Your task to perform on an android device: install app "Venmo" Image 0: 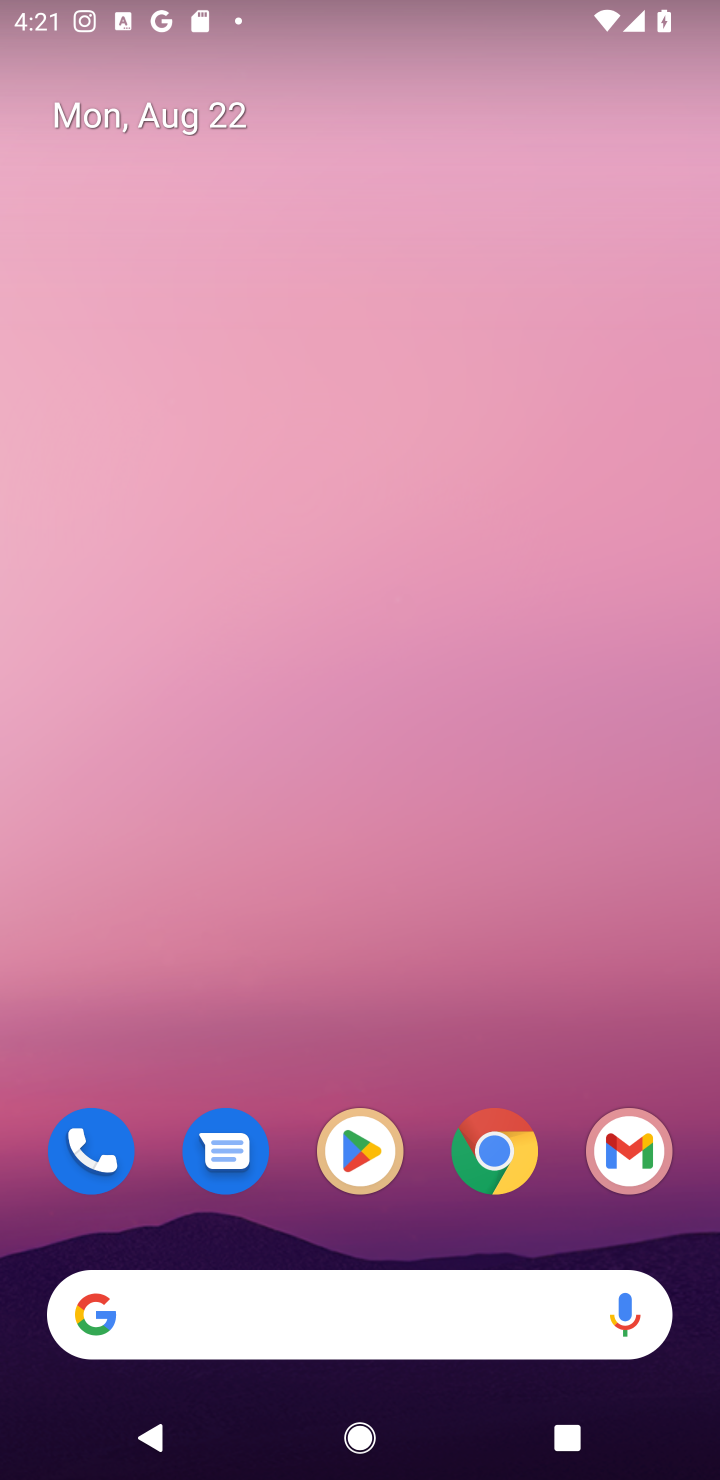
Step 0: click (348, 1130)
Your task to perform on an android device: install app "Venmo" Image 1: 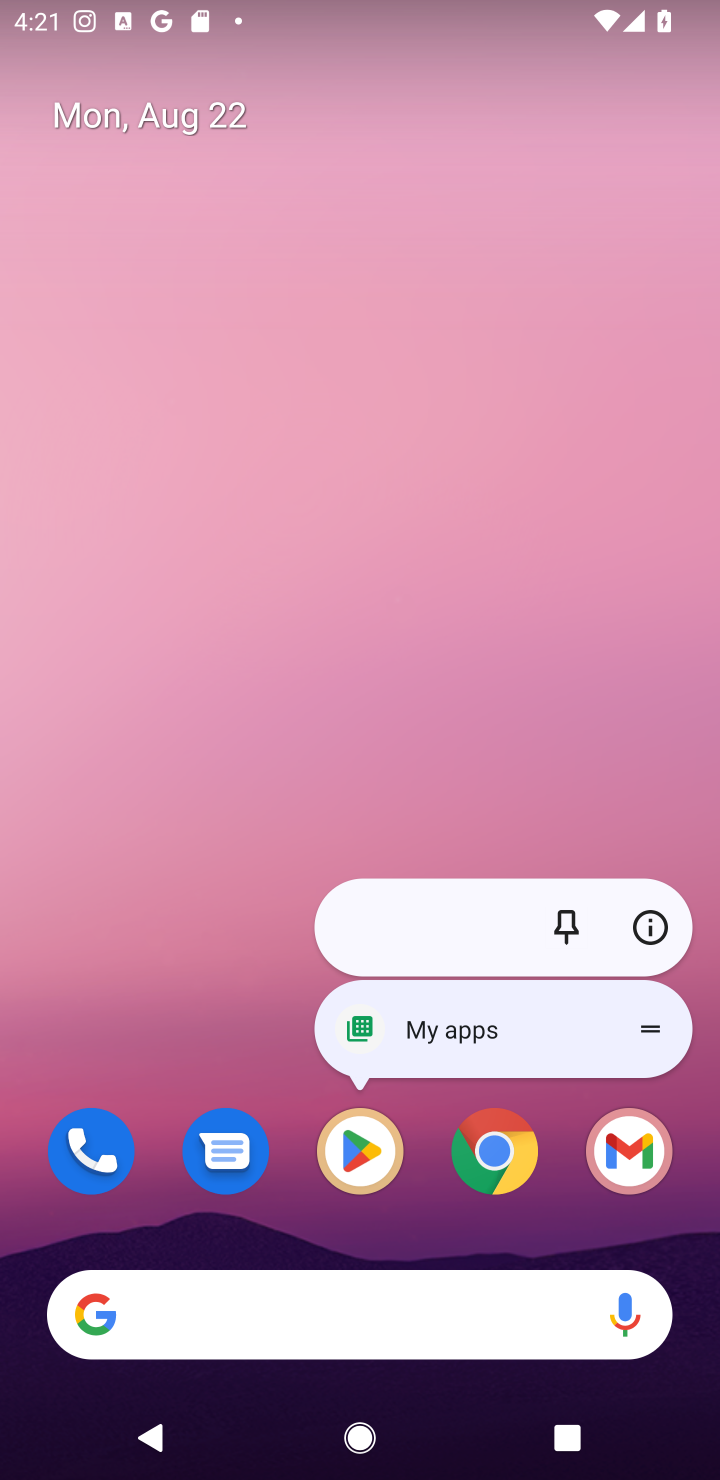
Step 1: click (348, 1134)
Your task to perform on an android device: install app "Venmo" Image 2: 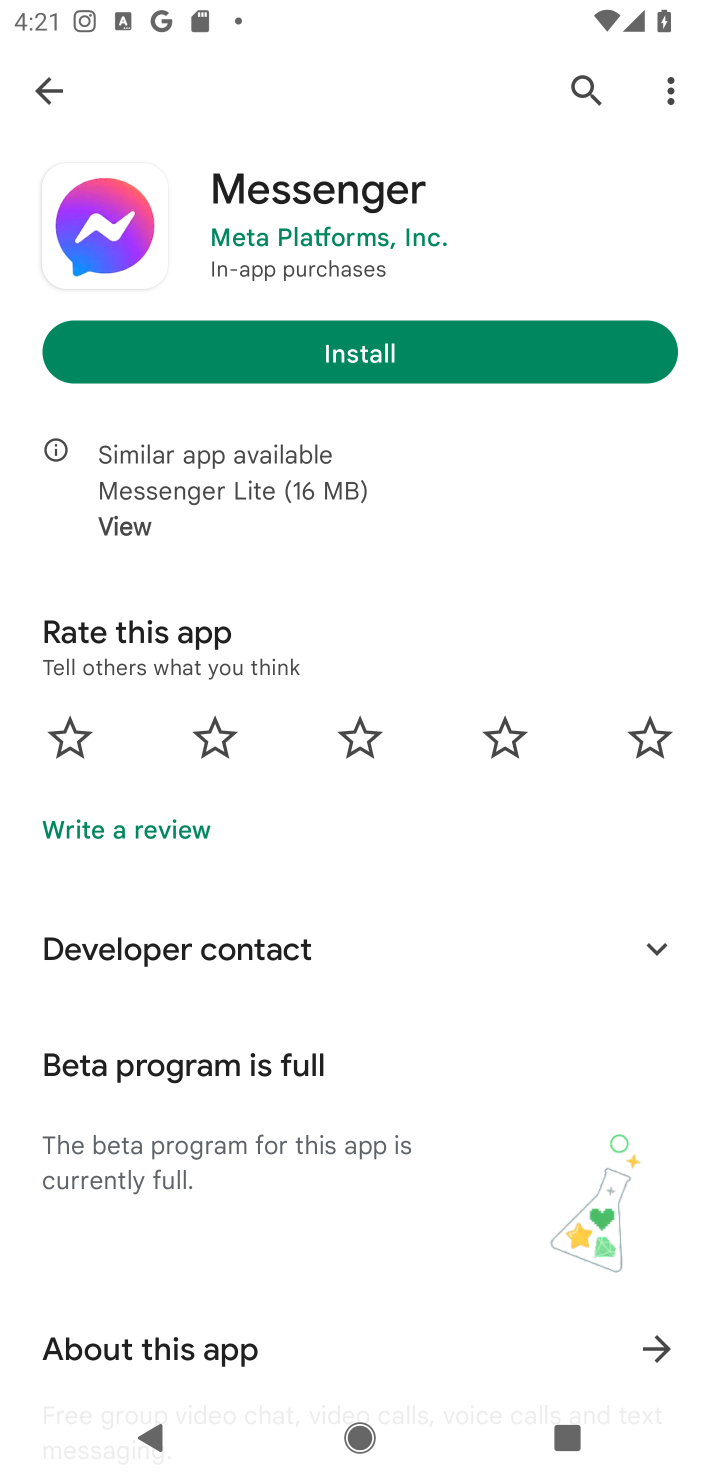
Step 2: click (578, 77)
Your task to perform on an android device: install app "Venmo" Image 3: 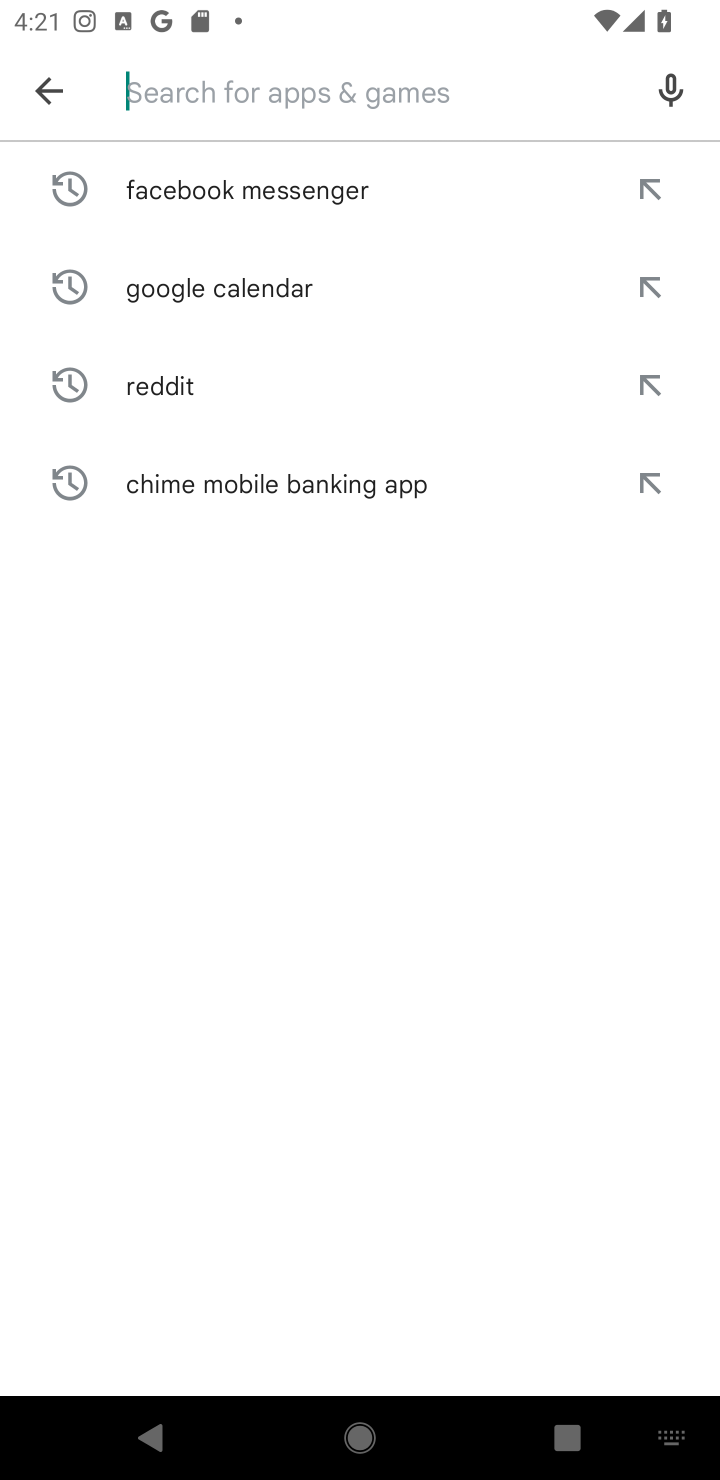
Step 3: type "Venmo"
Your task to perform on an android device: install app "Venmo" Image 4: 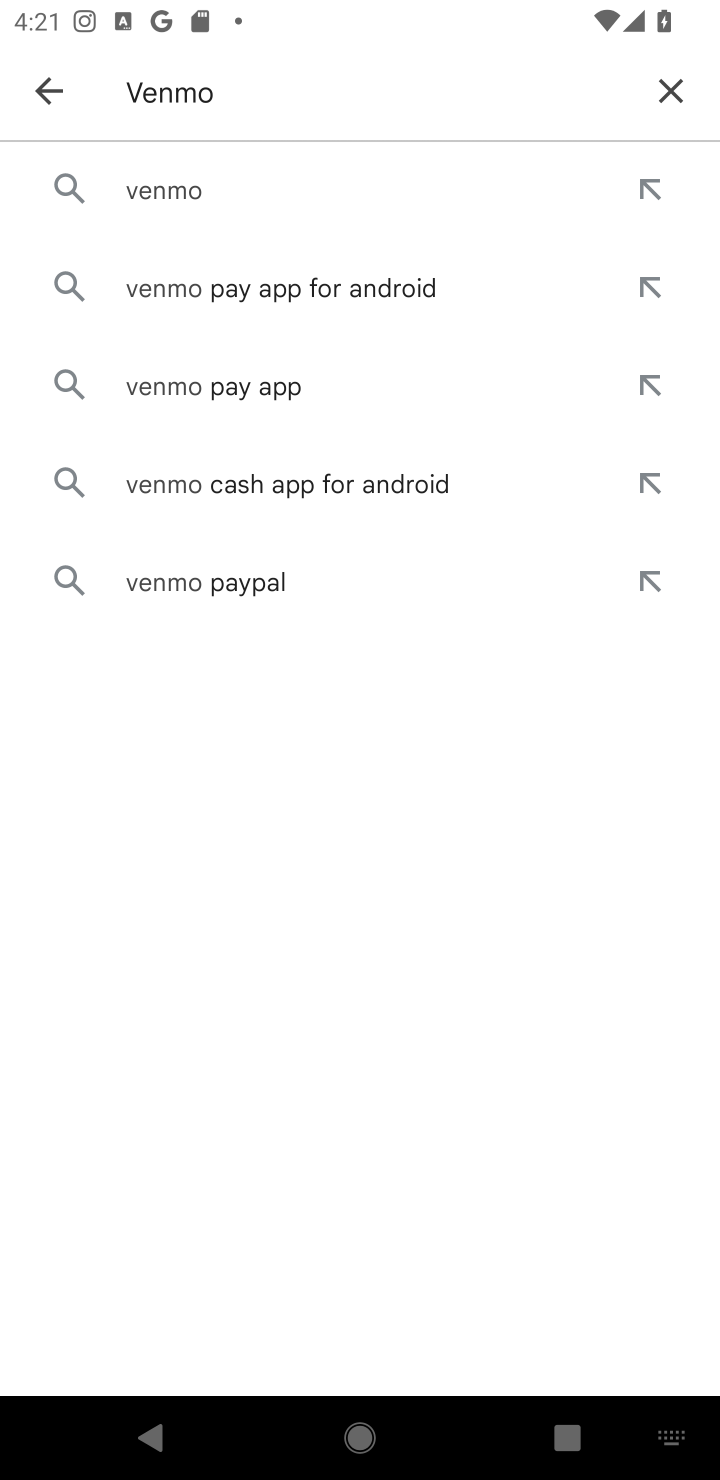
Step 4: click (182, 188)
Your task to perform on an android device: install app "Venmo" Image 5: 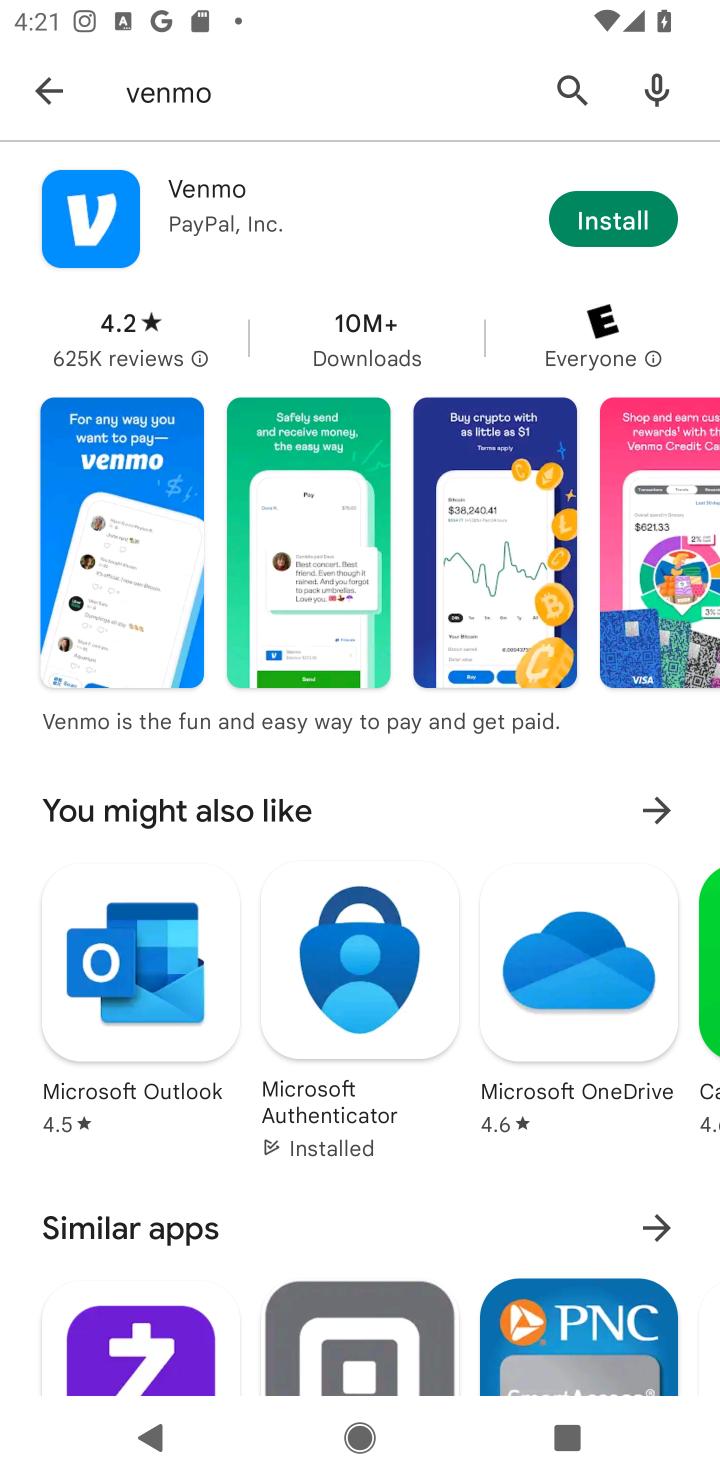
Step 5: click (624, 216)
Your task to perform on an android device: install app "Venmo" Image 6: 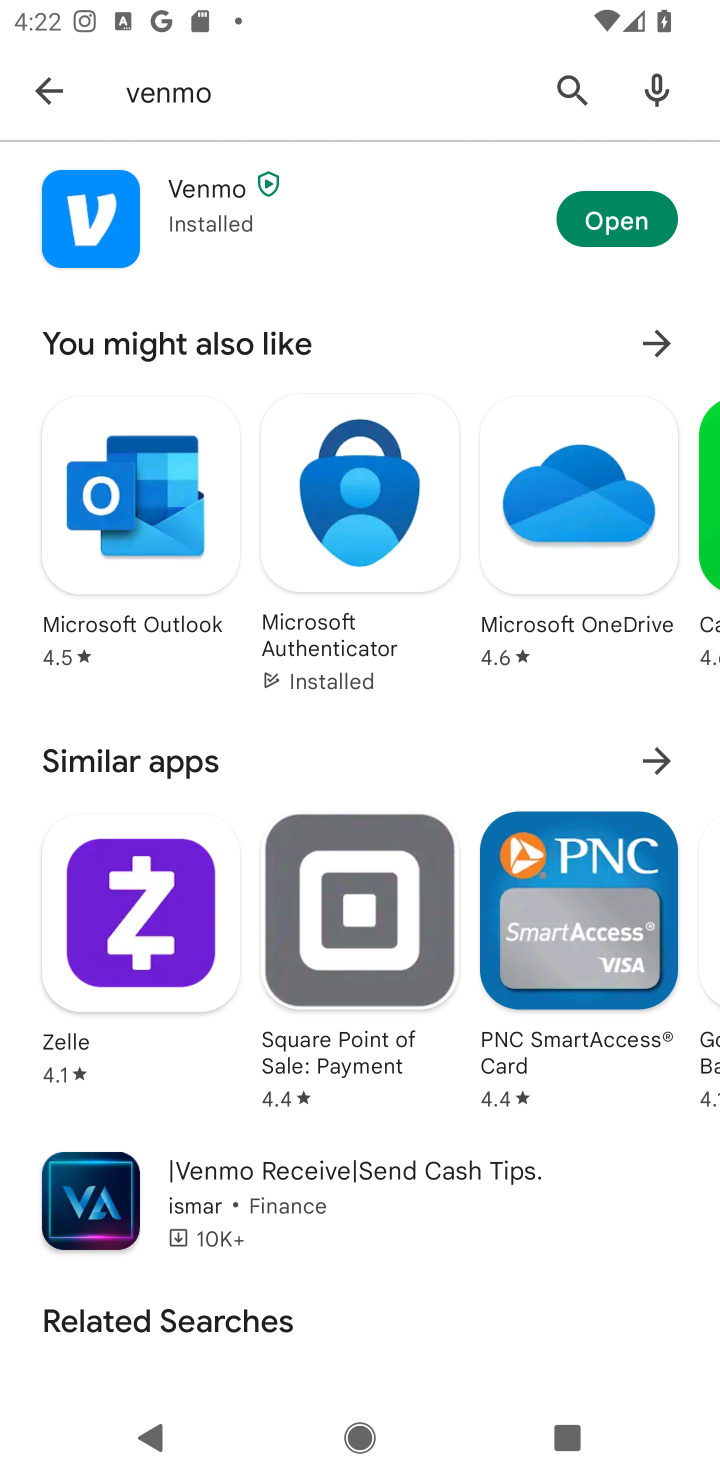
Step 6: task complete